Your task to perform on an android device: move a message to another label in the gmail app Image 0: 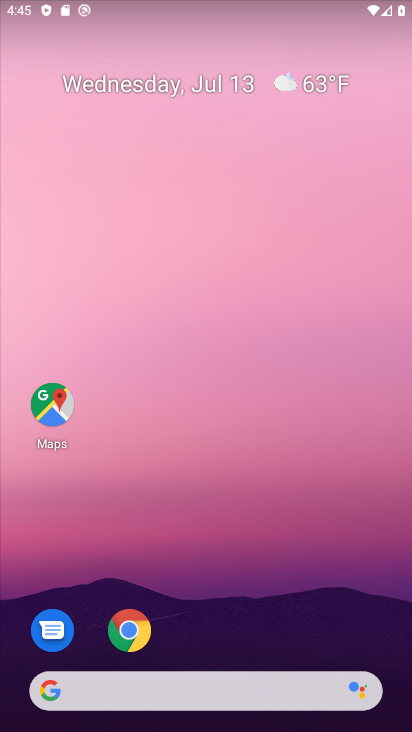
Step 0: press home button
Your task to perform on an android device: move a message to another label in the gmail app Image 1: 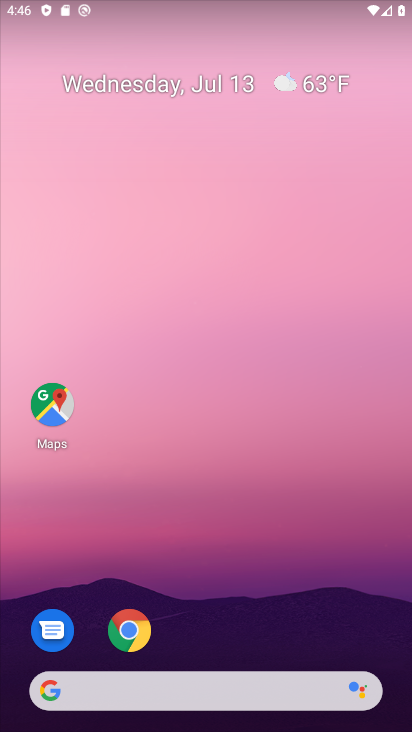
Step 1: drag from (244, 654) to (260, 153)
Your task to perform on an android device: move a message to another label in the gmail app Image 2: 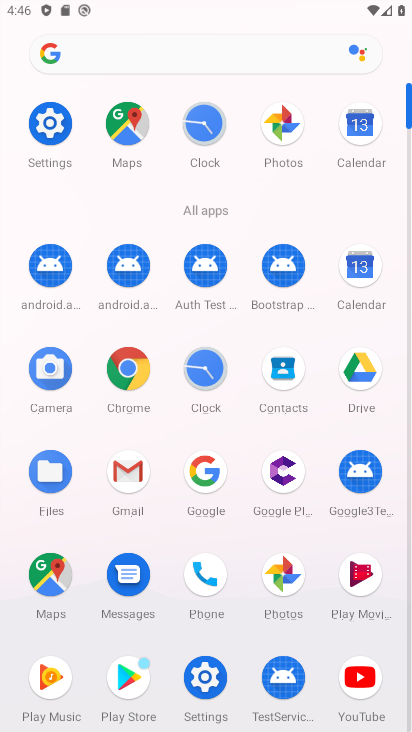
Step 2: click (130, 462)
Your task to perform on an android device: move a message to another label in the gmail app Image 3: 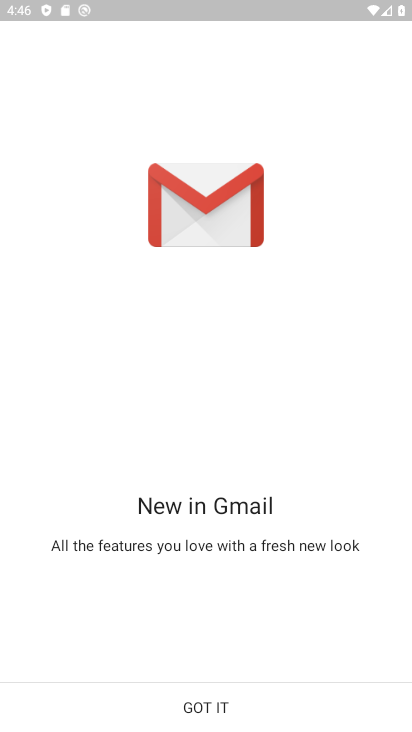
Step 3: click (214, 696)
Your task to perform on an android device: move a message to another label in the gmail app Image 4: 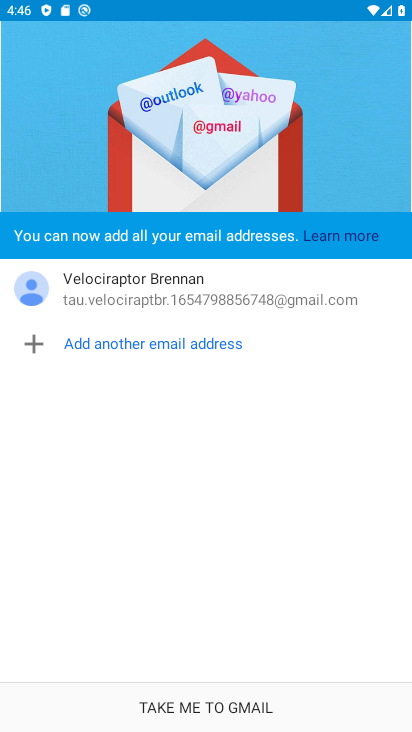
Step 4: click (214, 696)
Your task to perform on an android device: move a message to another label in the gmail app Image 5: 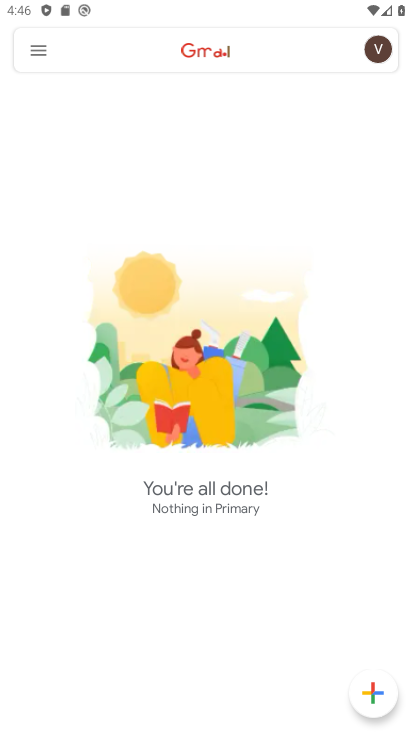
Step 5: click (33, 58)
Your task to perform on an android device: move a message to another label in the gmail app Image 6: 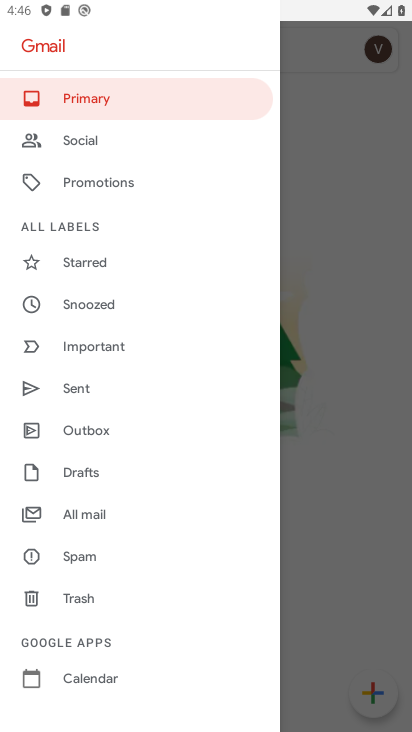
Step 6: click (80, 515)
Your task to perform on an android device: move a message to another label in the gmail app Image 7: 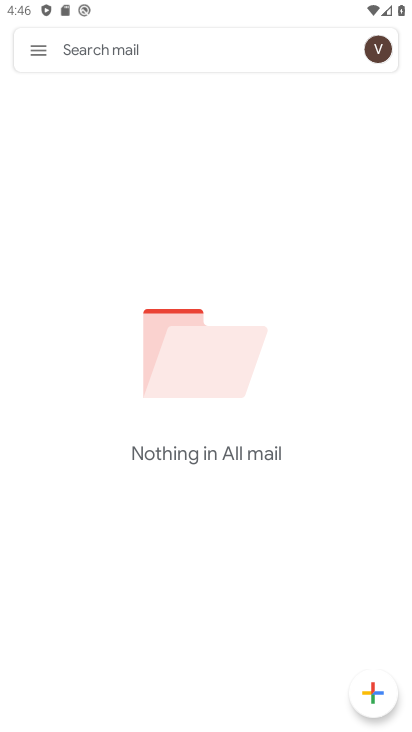
Step 7: task complete